Your task to perform on an android device: Open Android settings Image 0: 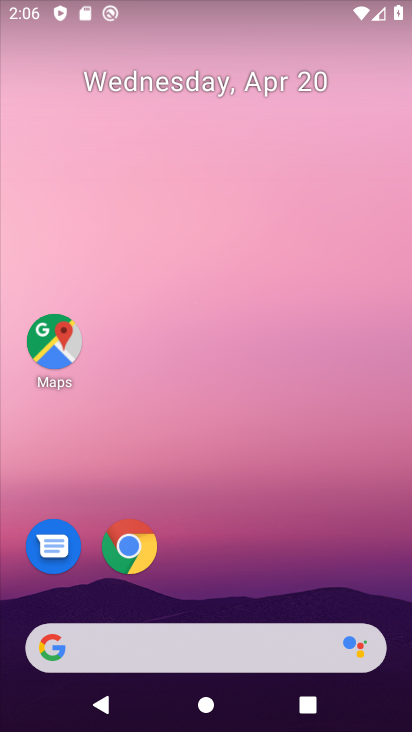
Step 0: drag from (241, 597) to (388, 0)
Your task to perform on an android device: Open Android settings Image 1: 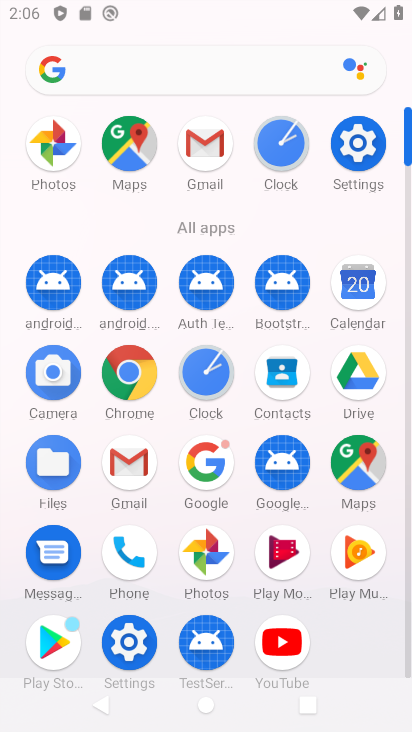
Step 1: click (133, 649)
Your task to perform on an android device: Open Android settings Image 2: 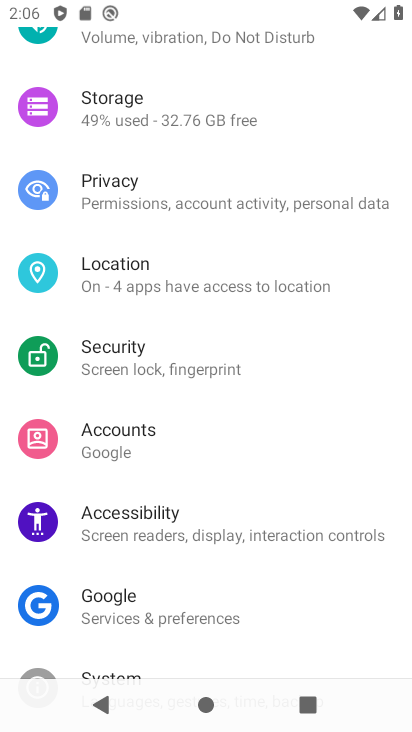
Step 2: task complete